Your task to perform on an android device: Set the phone to "Do not disturb". Image 0: 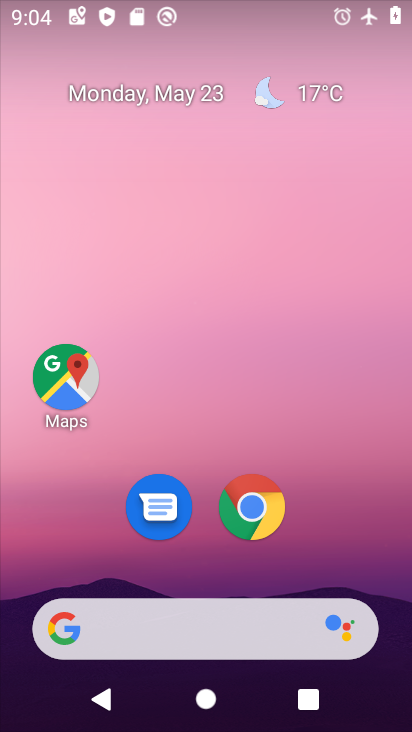
Step 0: drag from (351, 580) to (299, 6)
Your task to perform on an android device: Set the phone to "Do not disturb". Image 1: 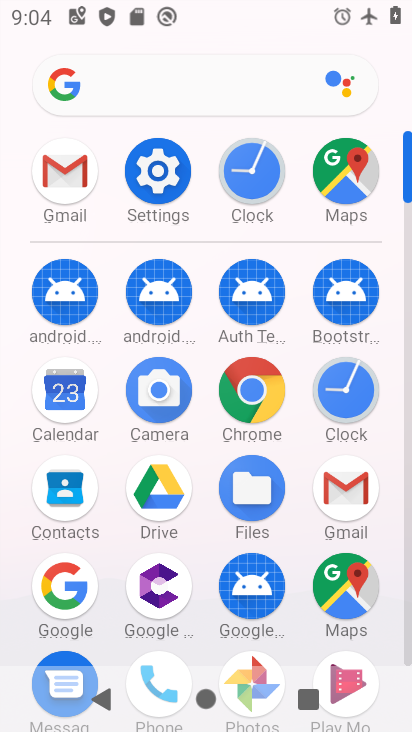
Step 1: click (140, 177)
Your task to perform on an android device: Set the phone to "Do not disturb". Image 2: 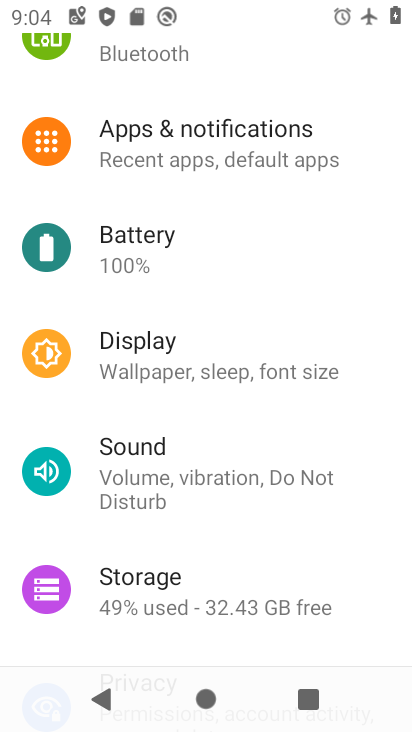
Step 2: click (120, 474)
Your task to perform on an android device: Set the phone to "Do not disturb". Image 3: 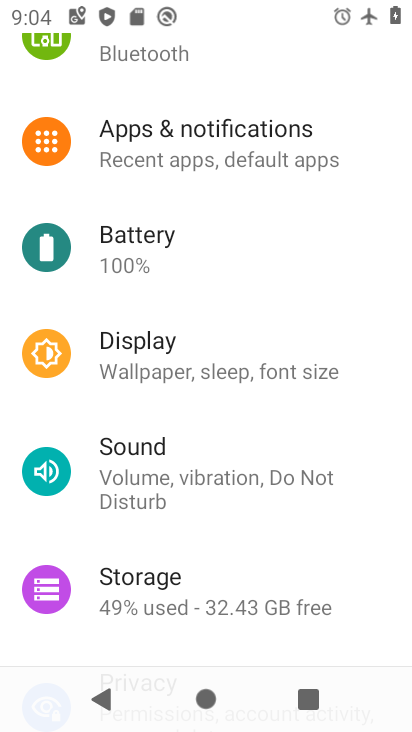
Step 3: click (129, 477)
Your task to perform on an android device: Set the phone to "Do not disturb". Image 4: 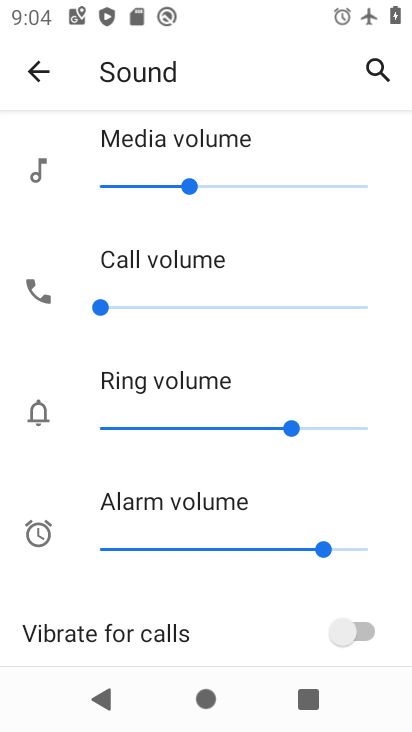
Step 4: drag from (150, 562) to (133, 133)
Your task to perform on an android device: Set the phone to "Do not disturb". Image 5: 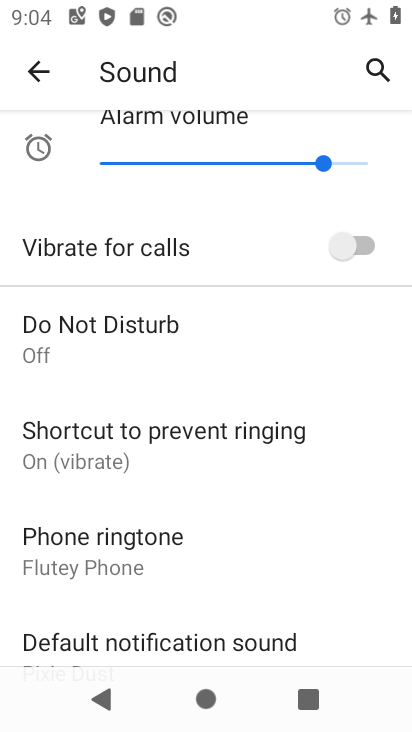
Step 5: click (74, 340)
Your task to perform on an android device: Set the phone to "Do not disturb". Image 6: 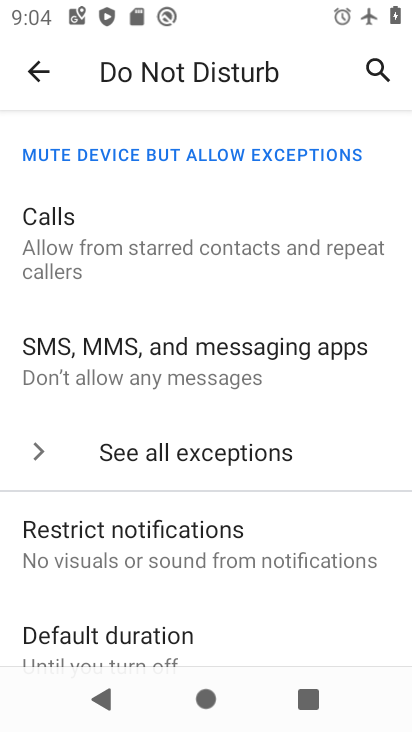
Step 6: task complete